Your task to perform on an android device: change the upload size in google photos Image 0: 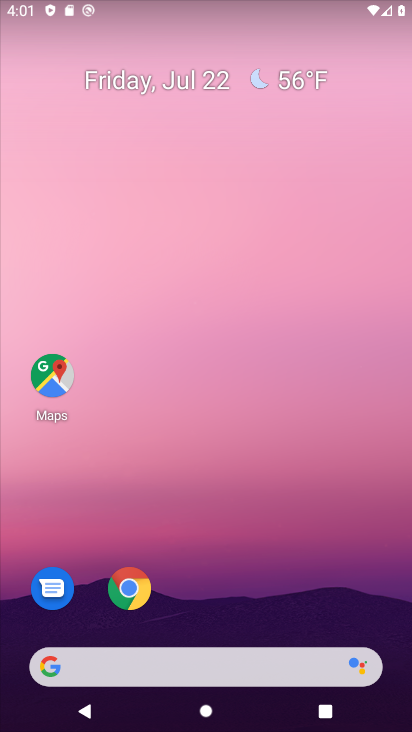
Step 0: drag from (198, 626) to (202, 59)
Your task to perform on an android device: change the upload size in google photos Image 1: 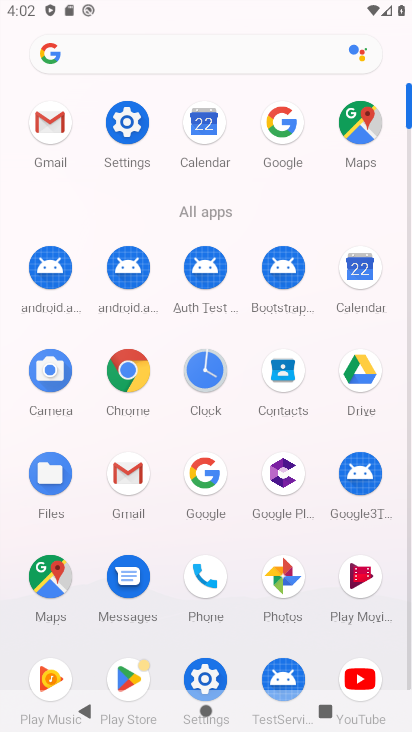
Step 1: click (268, 561)
Your task to perform on an android device: change the upload size in google photos Image 2: 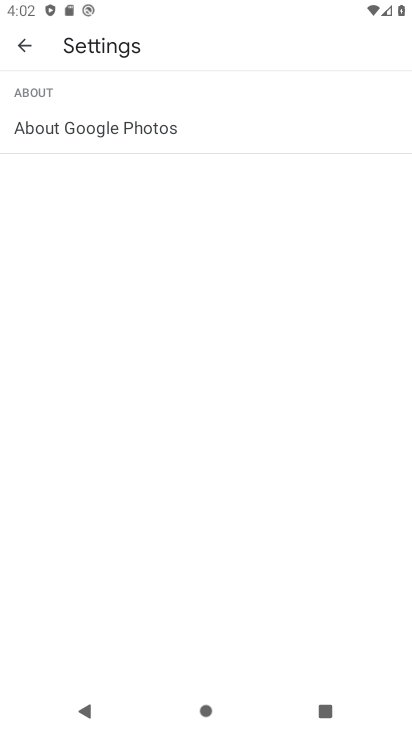
Step 2: click (12, 45)
Your task to perform on an android device: change the upload size in google photos Image 3: 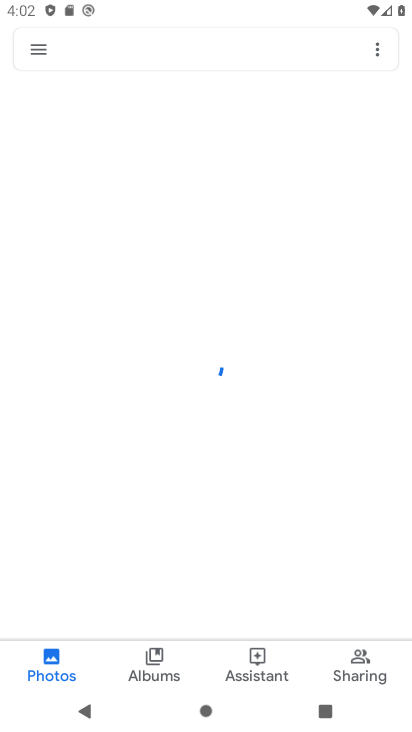
Step 3: click (37, 66)
Your task to perform on an android device: change the upload size in google photos Image 4: 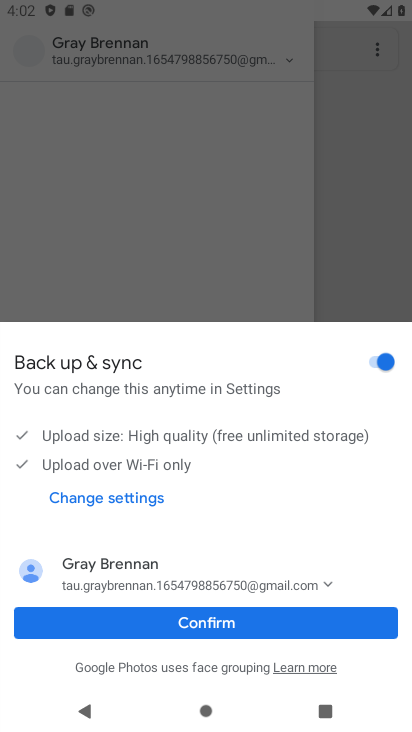
Step 4: click (192, 621)
Your task to perform on an android device: change the upload size in google photos Image 5: 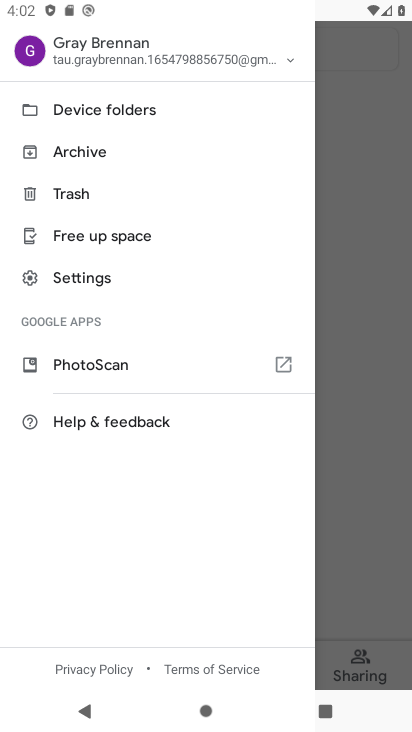
Step 5: click (102, 296)
Your task to perform on an android device: change the upload size in google photos Image 6: 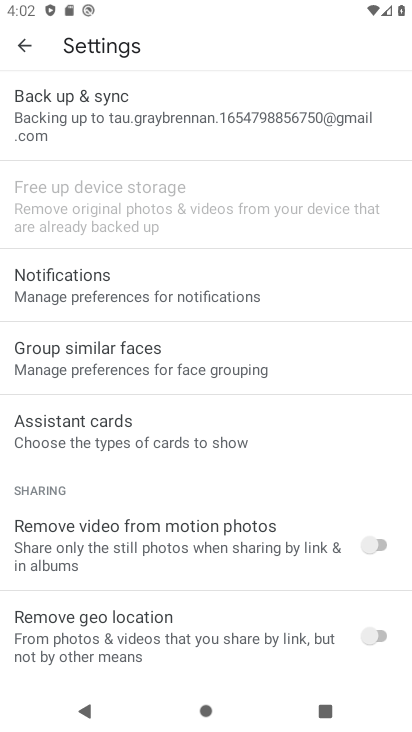
Step 6: click (94, 149)
Your task to perform on an android device: change the upload size in google photos Image 7: 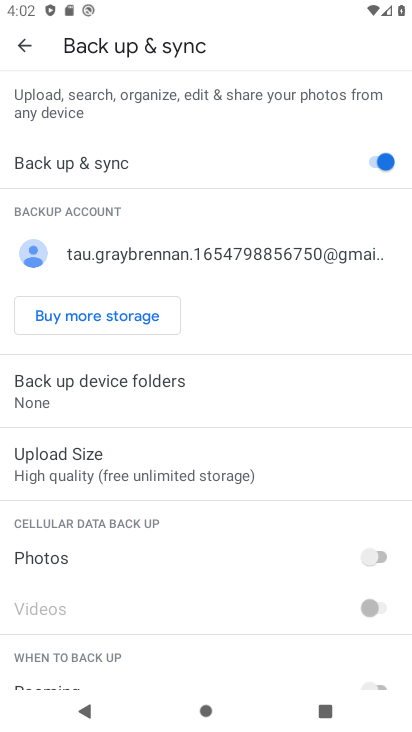
Step 7: click (107, 479)
Your task to perform on an android device: change the upload size in google photos Image 8: 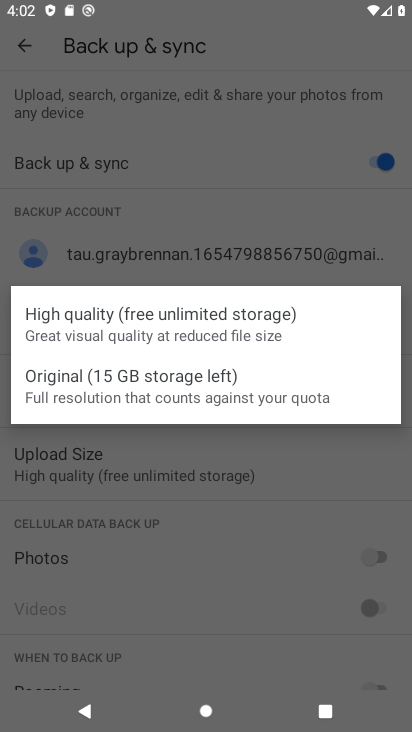
Step 8: click (97, 375)
Your task to perform on an android device: change the upload size in google photos Image 9: 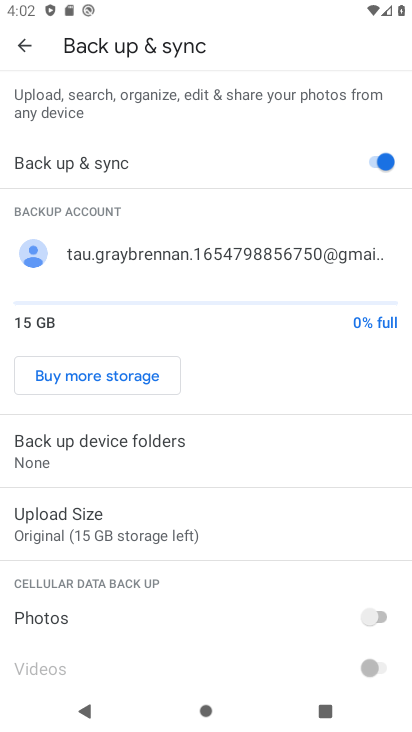
Step 9: task complete